Your task to perform on an android device: see tabs open on other devices in the chrome app Image 0: 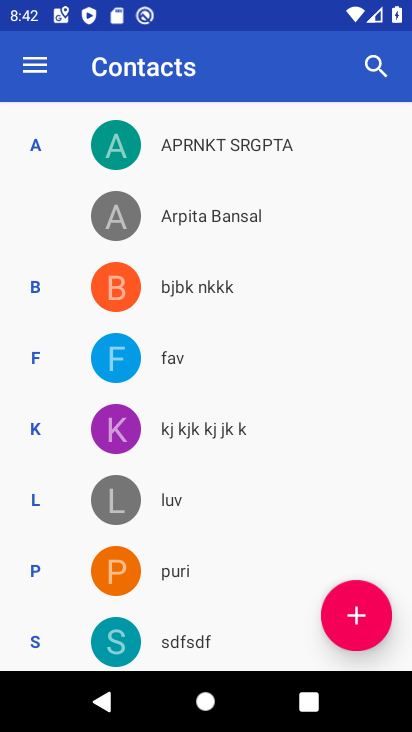
Step 0: press home button
Your task to perform on an android device: see tabs open on other devices in the chrome app Image 1: 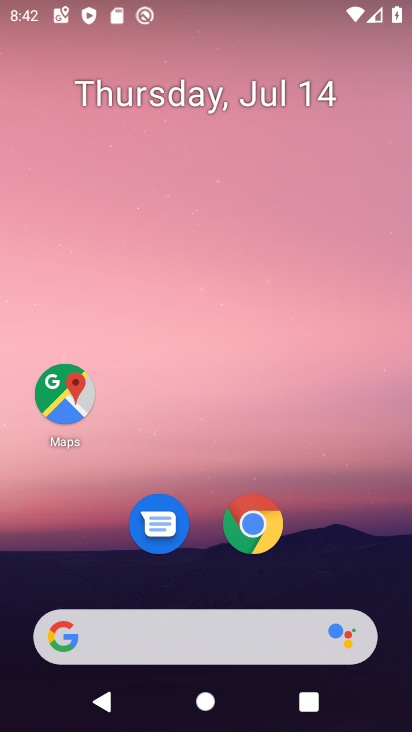
Step 1: click (255, 522)
Your task to perform on an android device: see tabs open on other devices in the chrome app Image 2: 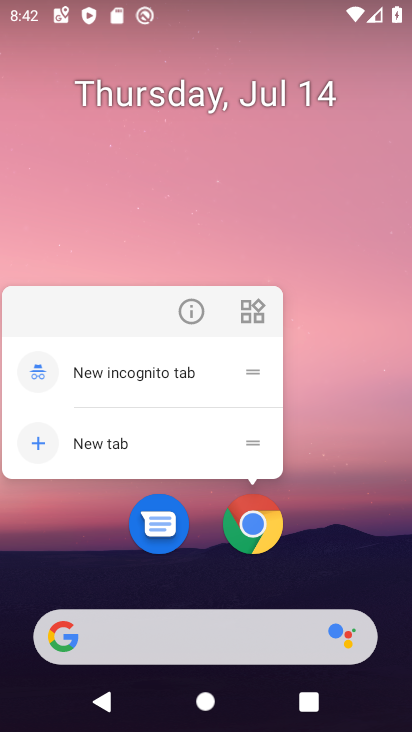
Step 2: click (256, 516)
Your task to perform on an android device: see tabs open on other devices in the chrome app Image 3: 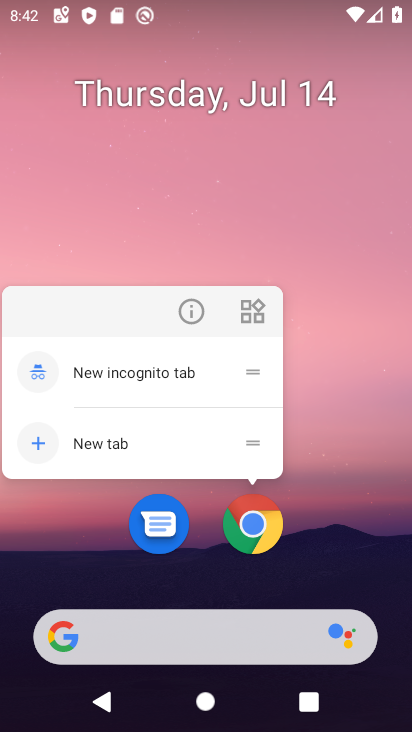
Step 3: click (256, 516)
Your task to perform on an android device: see tabs open on other devices in the chrome app Image 4: 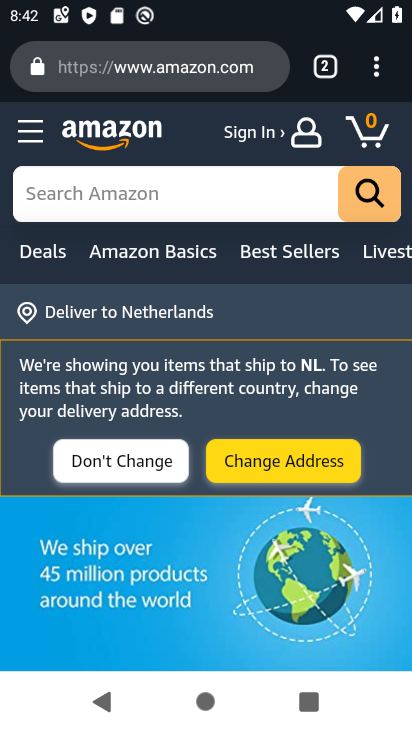
Step 4: click (256, 516)
Your task to perform on an android device: see tabs open on other devices in the chrome app Image 5: 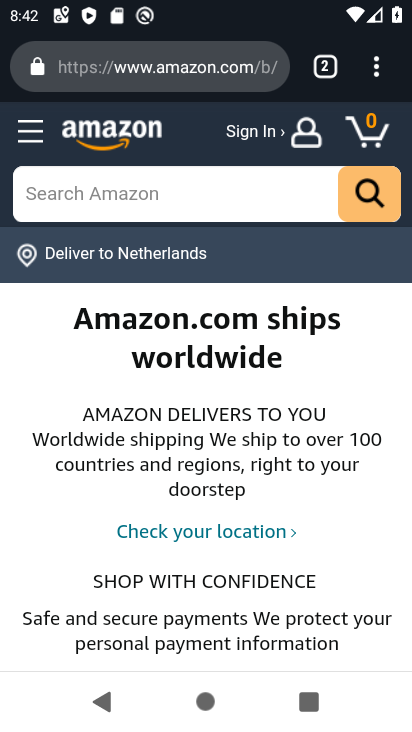
Step 5: click (371, 71)
Your task to perform on an android device: see tabs open on other devices in the chrome app Image 6: 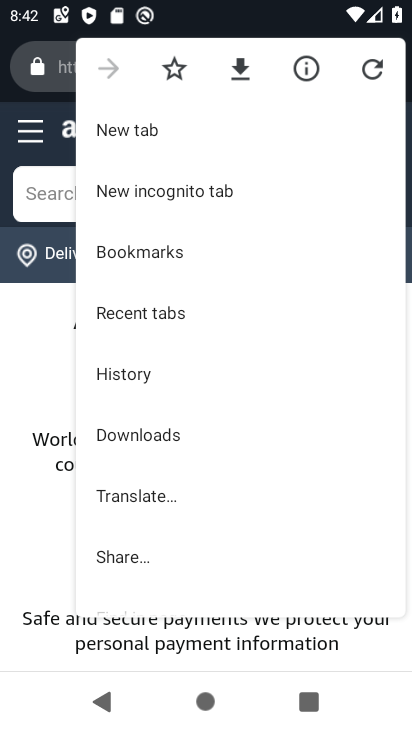
Step 6: click (166, 314)
Your task to perform on an android device: see tabs open on other devices in the chrome app Image 7: 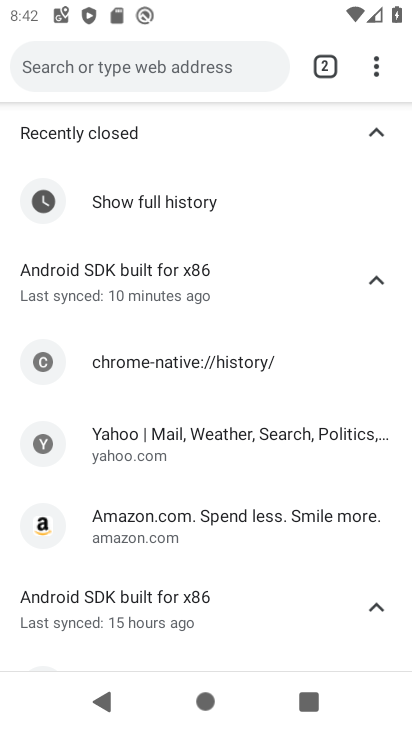
Step 7: task complete